Your task to perform on an android device: toggle improve location accuracy Image 0: 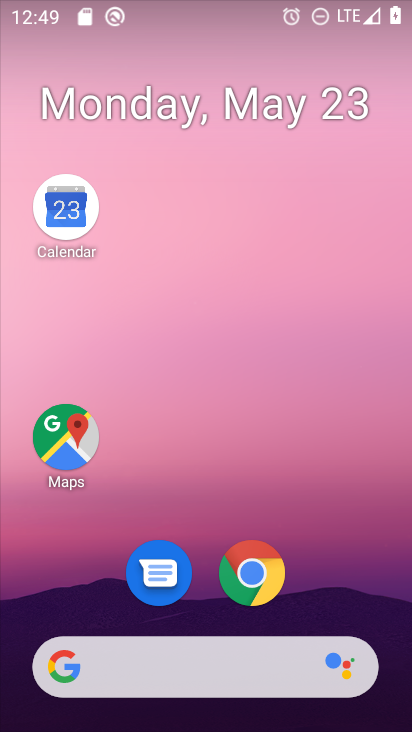
Step 0: drag from (346, 594) to (337, 119)
Your task to perform on an android device: toggle improve location accuracy Image 1: 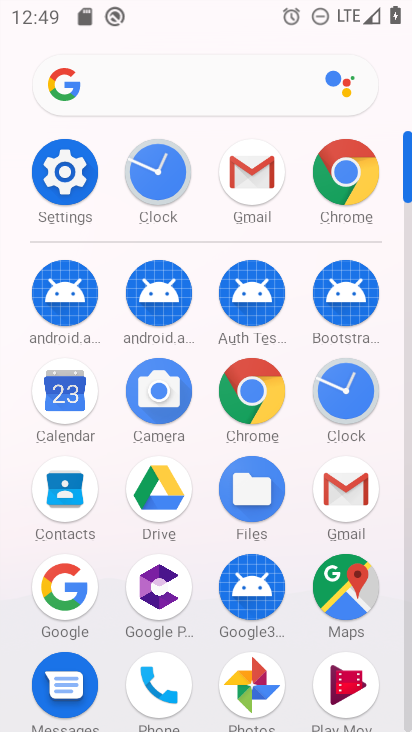
Step 1: click (70, 179)
Your task to perform on an android device: toggle improve location accuracy Image 2: 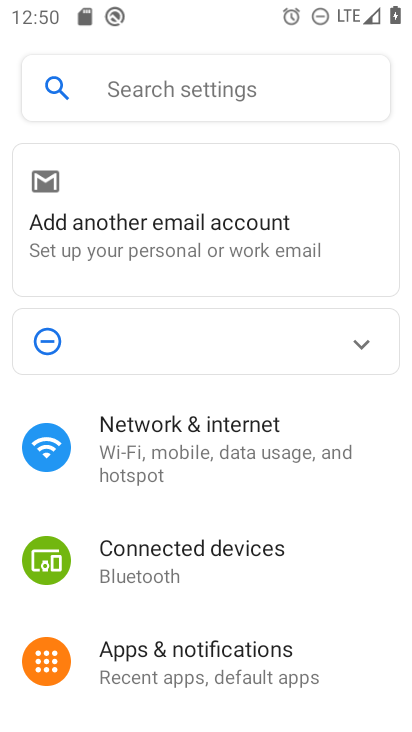
Step 2: drag from (213, 700) to (291, 355)
Your task to perform on an android device: toggle improve location accuracy Image 3: 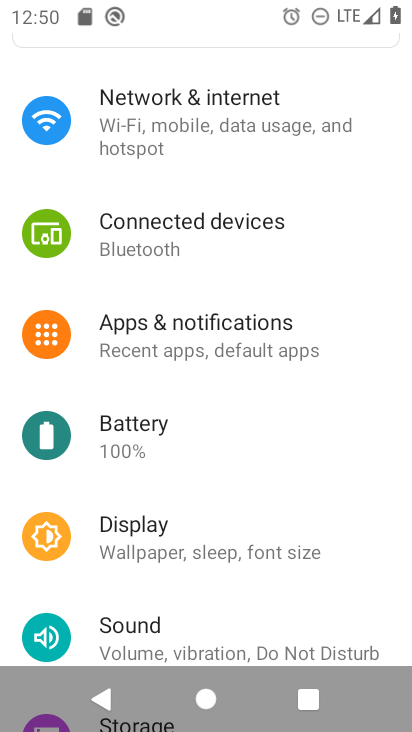
Step 3: drag from (239, 588) to (237, 240)
Your task to perform on an android device: toggle improve location accuracy Image 4: 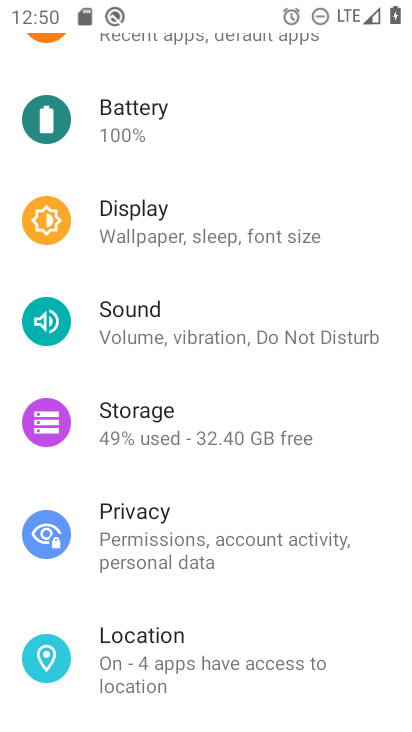
Step 4: click (170, 665)
Your task to perform on an android device: toggle improve location accuracy Image 5: 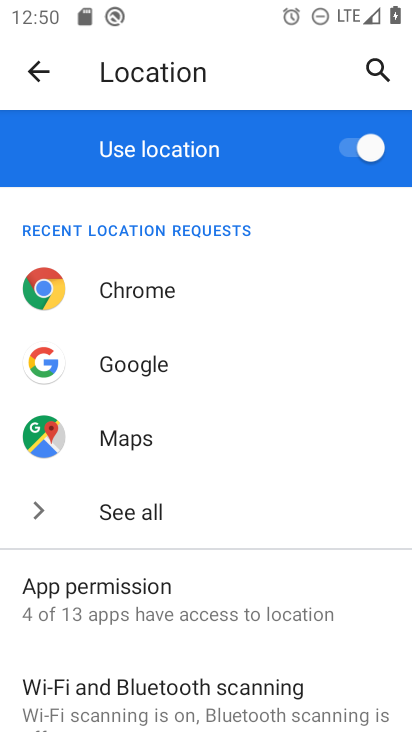
Step 5: drag from (172, 680) to (257, 300)
Your task to perform on an android device: toggle improve location accuracy Image 6: 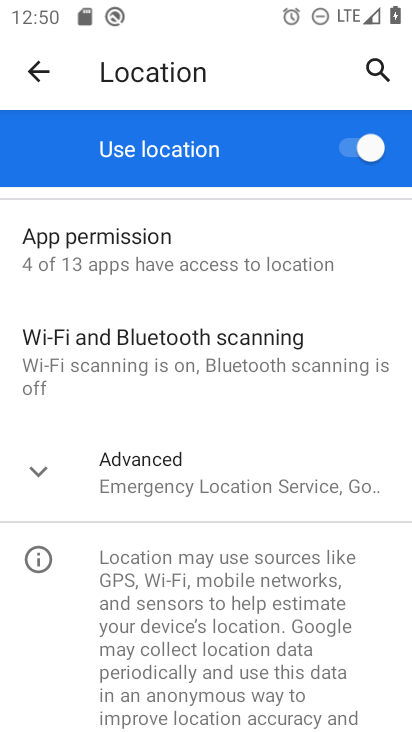
Step 6: click (168, 467)
Your task to perform on an android device: toggle improve location accuracy Image 7: 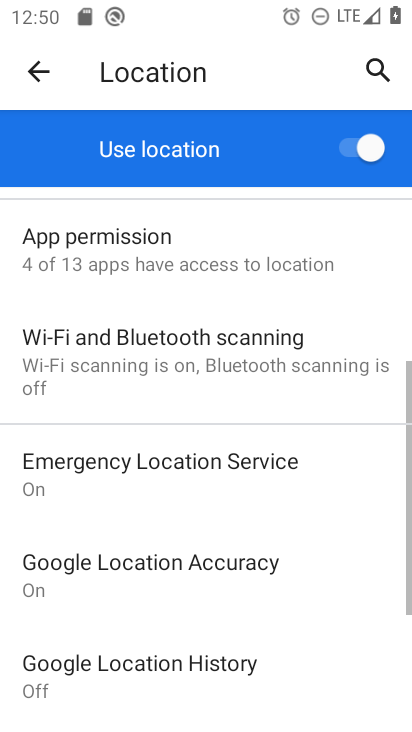
Step 7: drag from (189, 687) to (226, 445)
Your task to perform on an android device: toggle improve location accuracy Image 8: 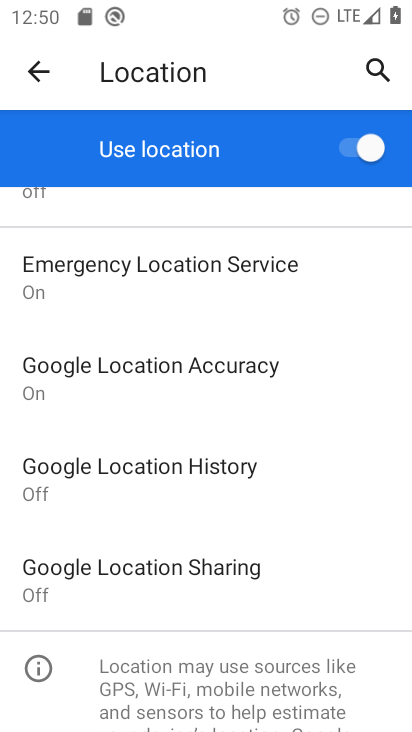
Step 8: click (186, 379)
Your task to perform on an android device: toggle improve location accuracy Image 9: 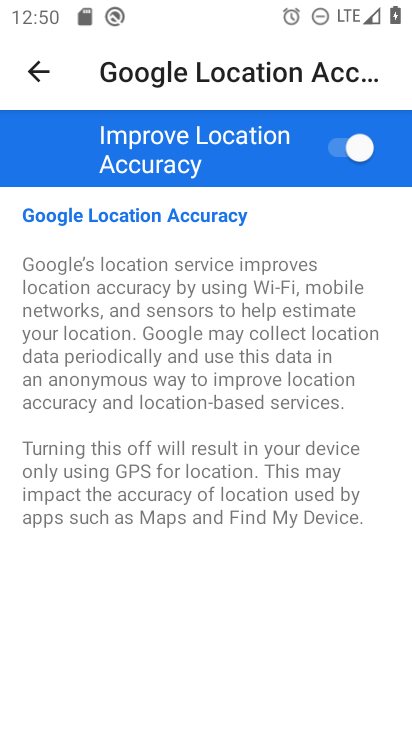
Step 9: click (350, 163)
Your task to perform on an android device: toggle improve location accuracy Image 10: 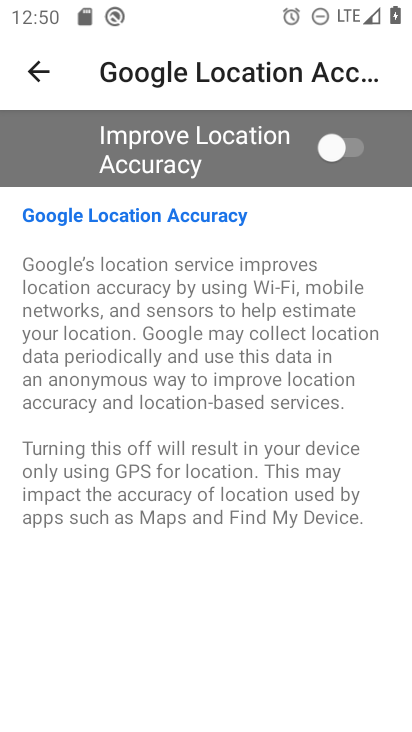
Step 10: task complete